Your task to perform on an android device: Search for Italian restaurants on Maps Image 0: 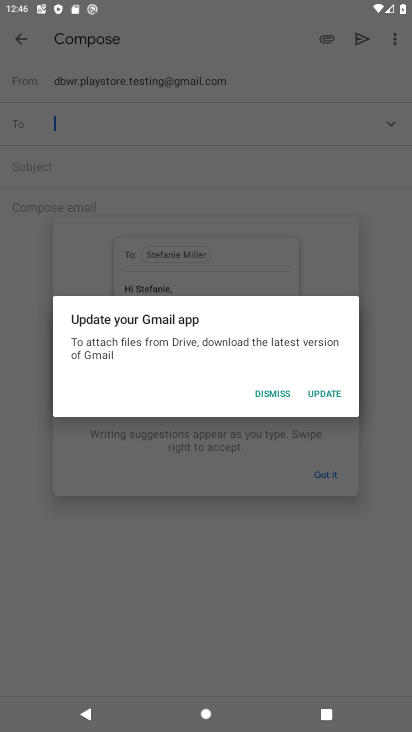
Step 0: press home button
Your task to perform on an android device: Search for Italian restaurants on Maps Image 1: 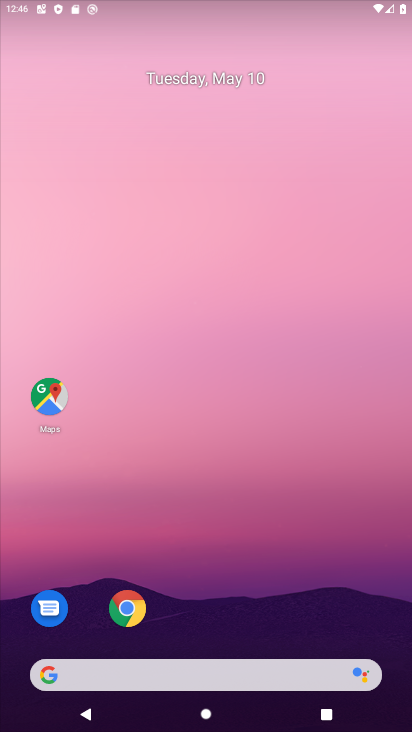
Step 1: drag from (324, 479) to (293, 157)
Your task to perform on an android device: Search for Italian restaurants on Maps Image 2: 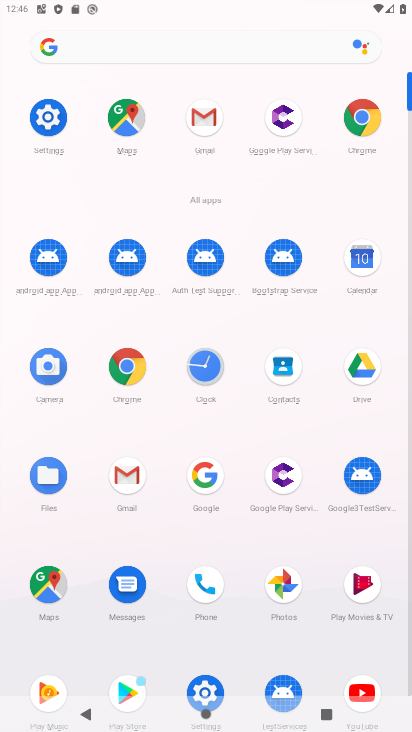
Step 2: click (18, 587)
Your task to perform on an android device: Search for Italian restaurants on Maps Image 3: 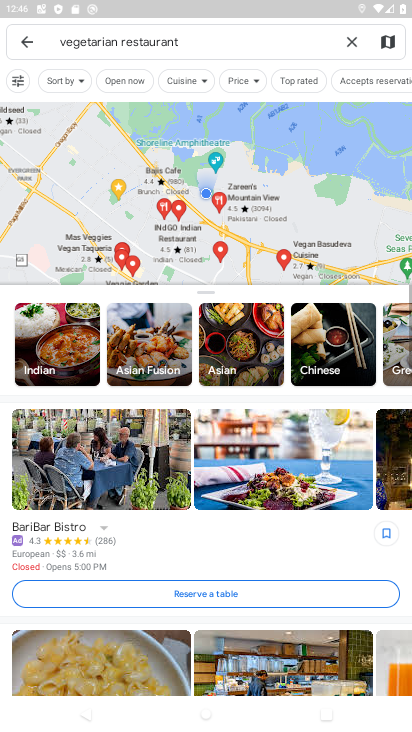
Step 3: click (341, 44)
Your task to perform on an android device: Search for Italian restaurants on Maps Image 4: 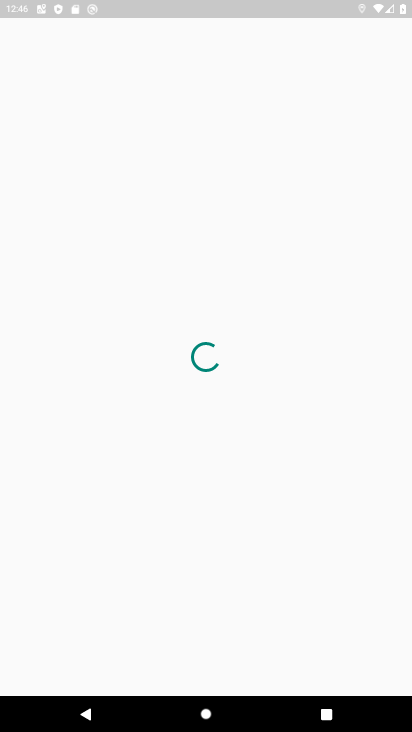
Step 4: click (164, 45)
Your task to perform on an android device: Search for Italian restaurants on Maps Image 5: 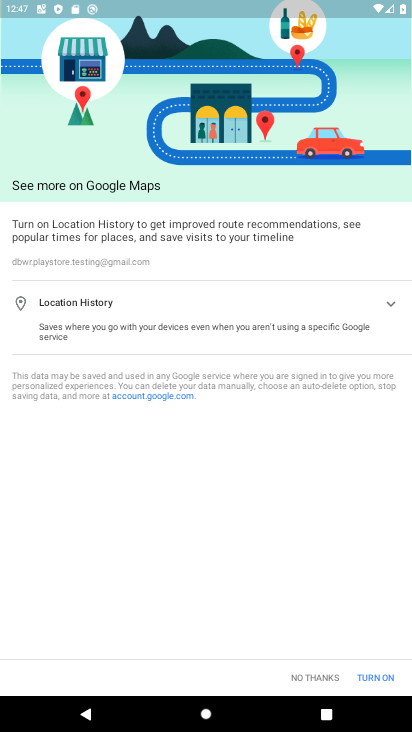
Step 5: click (305, 678)
Your task to perform on an android device: Search for Italian restaurants on Maps Image 6: 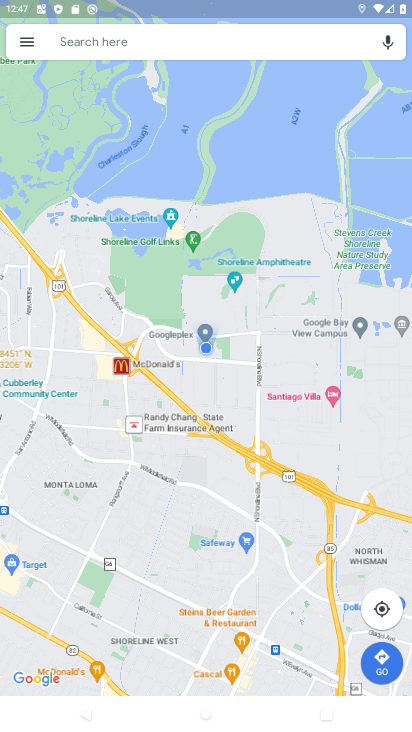
Step 6: click (144, 45)
Your task to perform on an android device: Search for Italian restaurants on Maps Image 7: 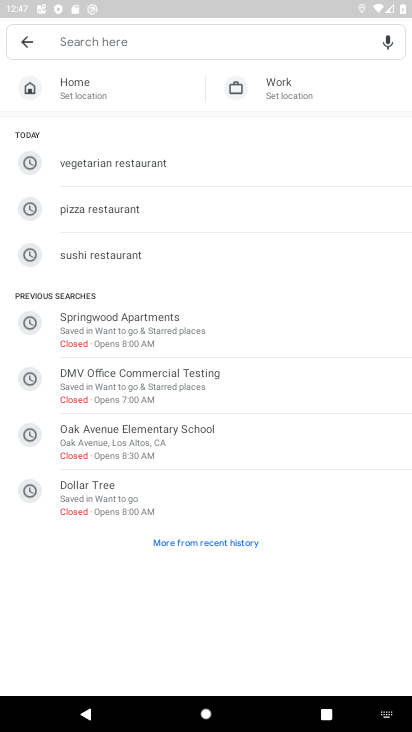
Step 7: type "italian restaurants"
Your task to perform on an android device: Search for Italian restaurants on Maps Image 8: 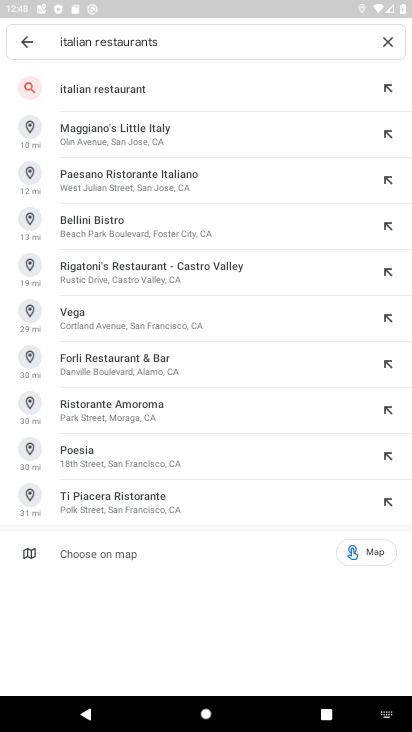
Step 8: click (154, 85)
Your task to perform on an android device: Search for Italian restaurants on Maps Image 9: 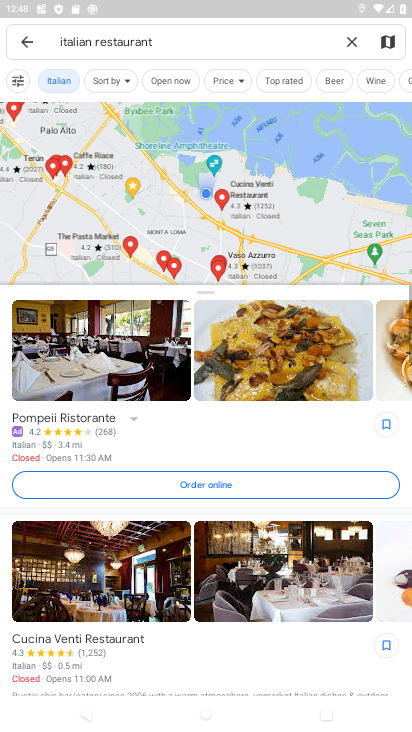
Step 9: task complete